Your task to perform on an android device: clear history in the chrome app Image 0: 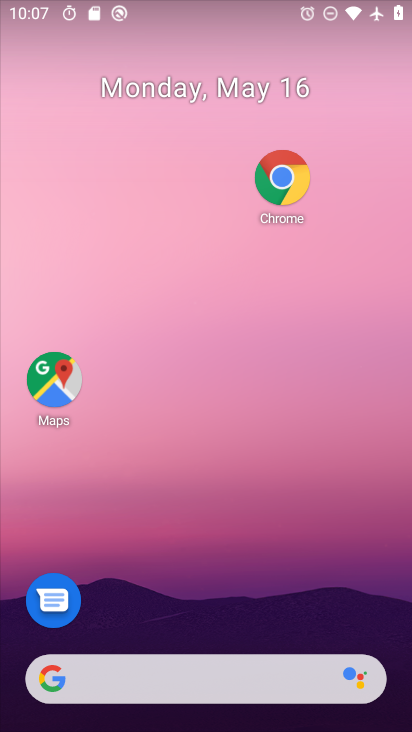
Step 0: press home button
Your task to perform on an android device: clear history in the chrome app Image 1: 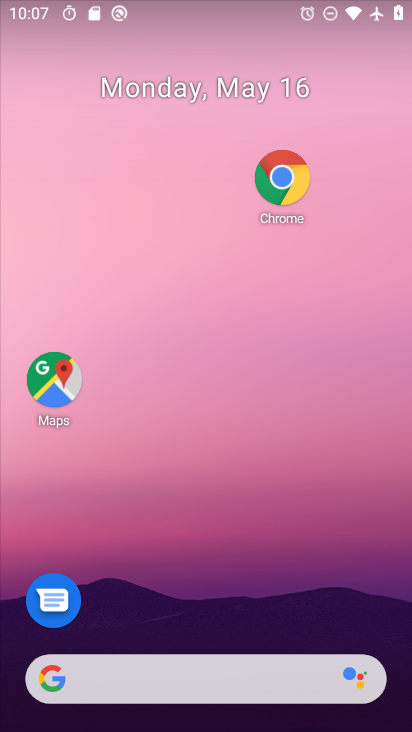
Step 1: click (279, 182)
Your task to perform on an android device: clear history in the chrome app Image 2: 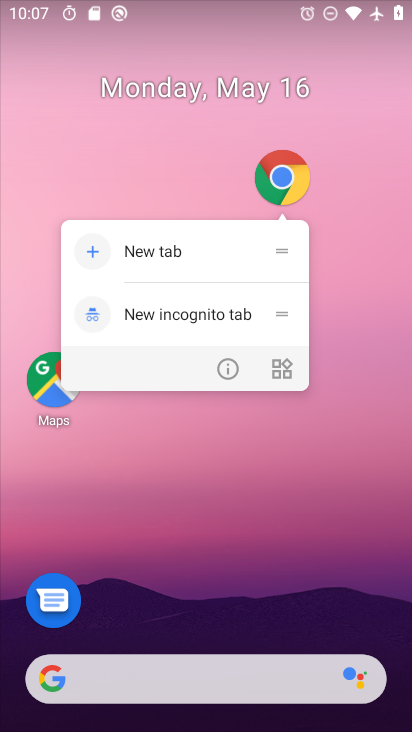
Step 2: click (282, 182)
Your task to perform on an android device: clear history in the chrome app Image 3: 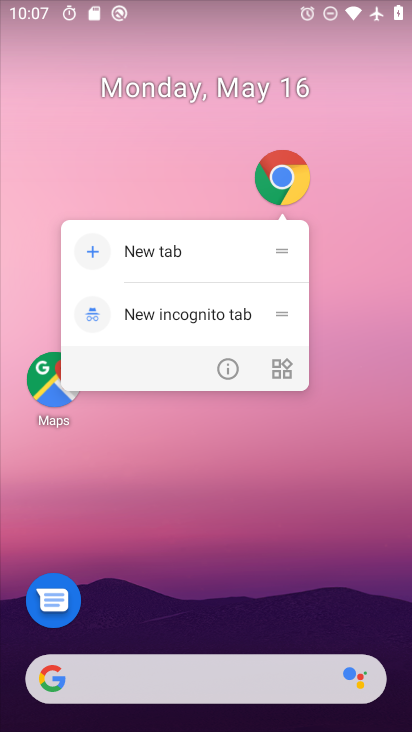
Step 3: click (282, 178)
Your task to perform on an android device: clear history in the chrome app Image 4: 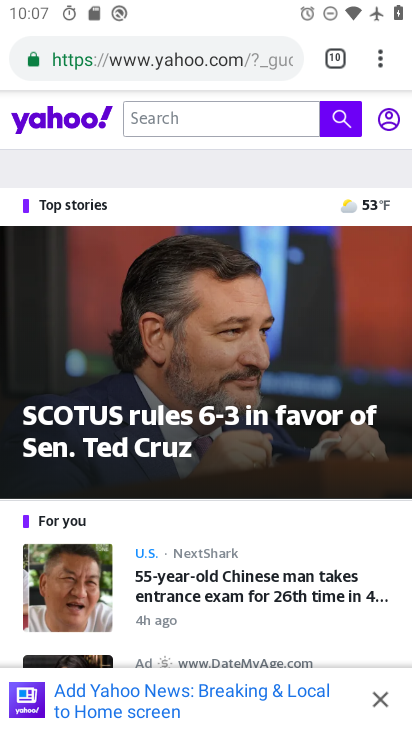
Step 4: drag from (381, 68) to (184, 320)
Your task to perform on an android device: clear history in the chrome app Image 5: 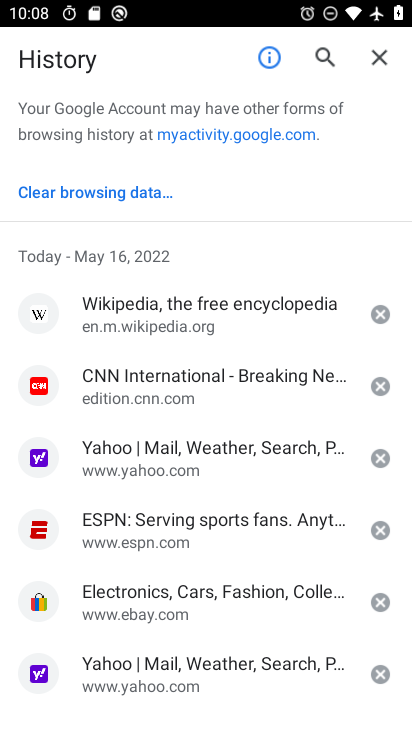
Step 5: click (132, 190)
Your task to perform on an android device: clear history in the chrome app Image 6: 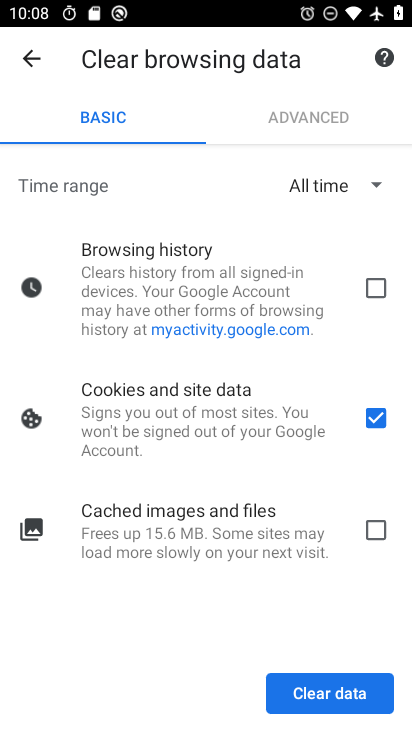
Step 6: click (375, 288)
Your task to perform on an android device: clear history in the chrome app Image 7: 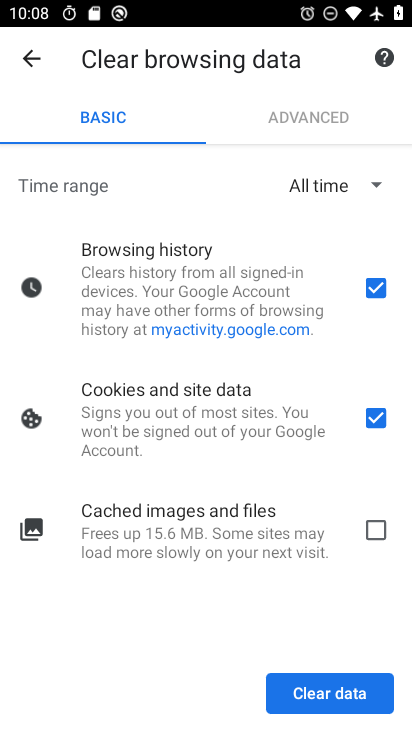
Step 7: click (368, 535)
Your task to perform on an android device: clear history in the chrome app Image 8: 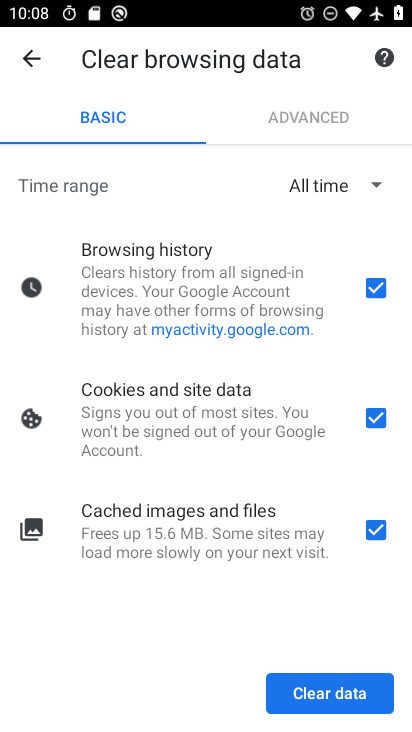
Step 8: click (329, 682)
Your task to perform on an android device: clear history in the chrome app Image 9: 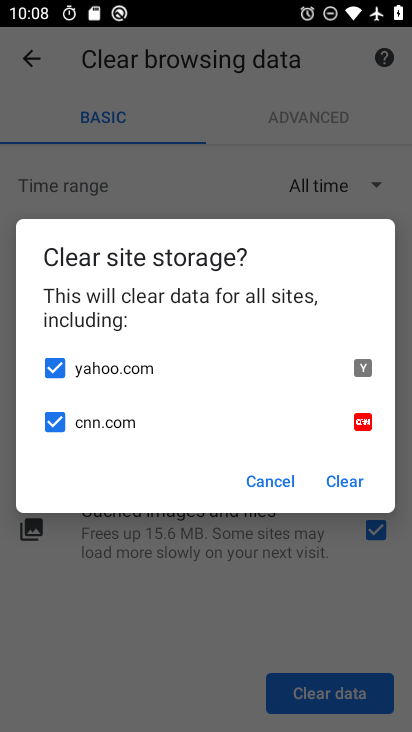
Step 9: click (351, 484)
Your task to perform on an android device: clear history in the chrome app Image 10: 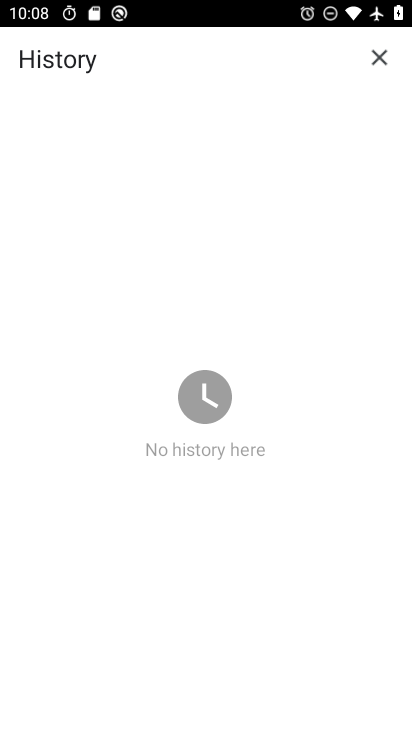
Step 10: task complete